Your task to perform on an android device: turn on javascript in the chrome app Image 0: 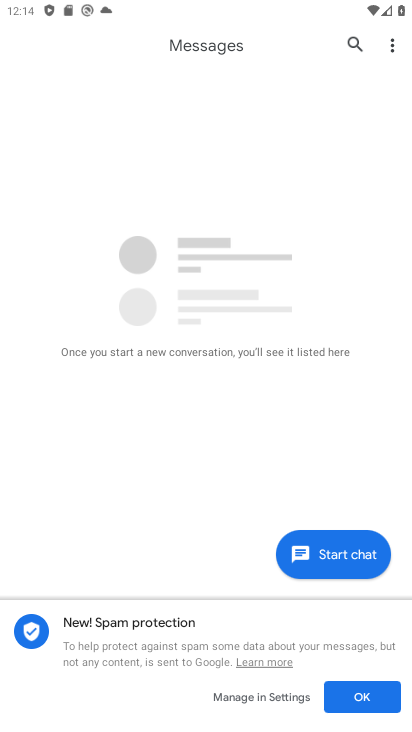
Step 0: press home button
Your task to perform on an android device: turn on javascript in the chrome app Image 1: 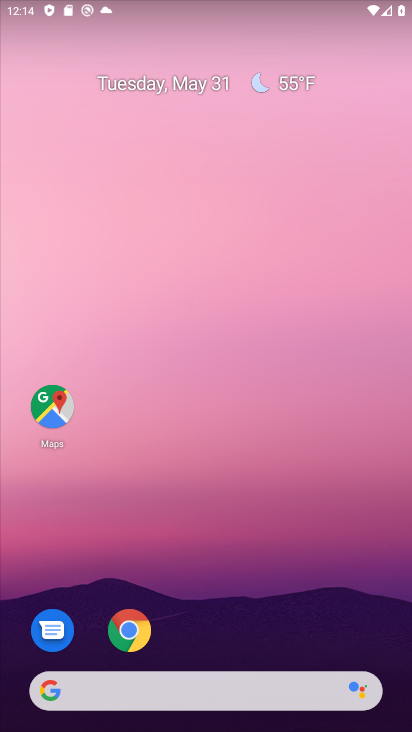
Step 1: click (135, 627)
Your task to perform on an android device: turn on javascript in the chrome app Image 2: 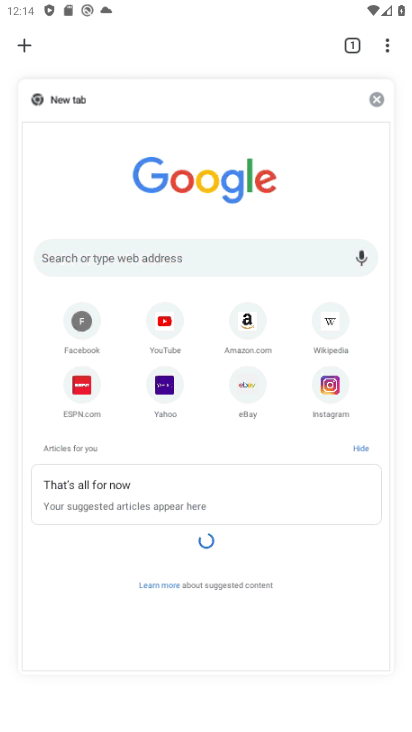
Step 2: click (386, 44)
Your task to perform on an android device: turn on javascript in the chrome app Image 3: 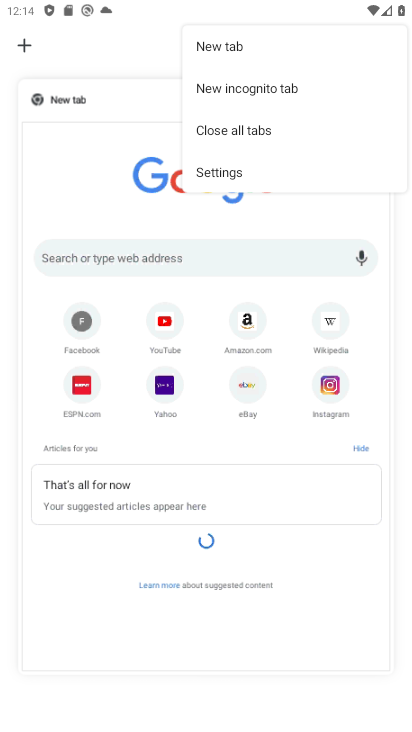
Step 3: click (216, 167)
Your task to perform on an android device: turn on javascript in the chrome app Image 4: 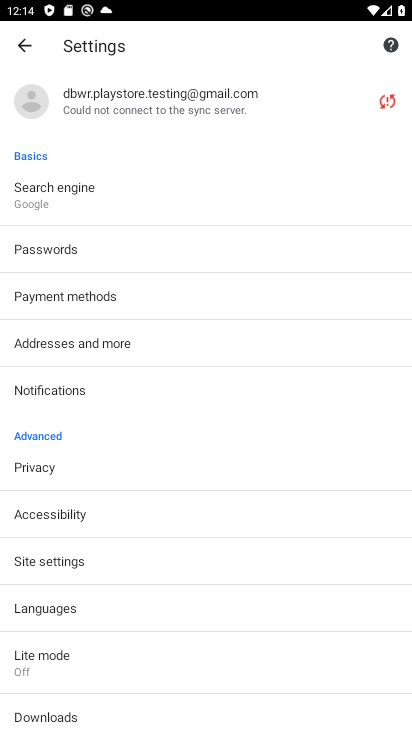
Step 4: click (136, 559)
Your task to perform on an android device: turn on javascript in the chrome app Image 5: 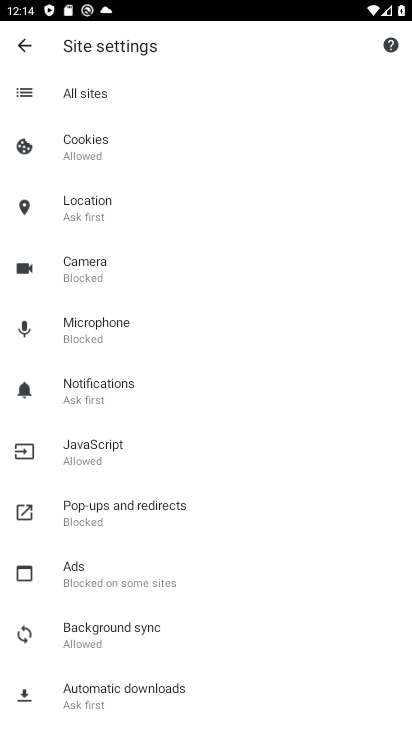
Step 5: click (121, 440)
Your task to perform on an android device: turn on javascript in the chrome app Image 6: 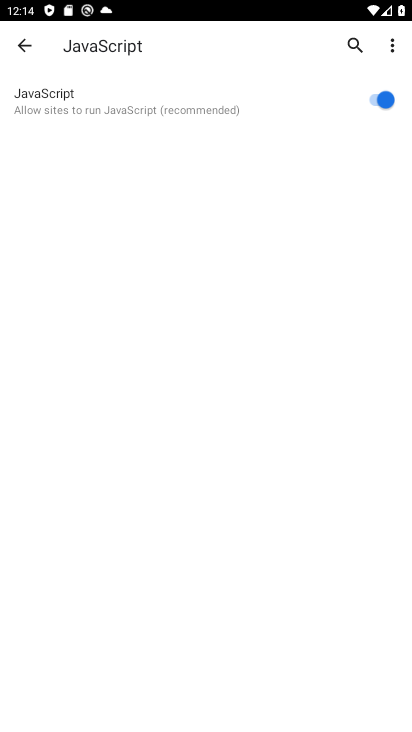
Step 6: task complete